Your task to perform on an android device: search for starred emails in the gmail app Image 0: 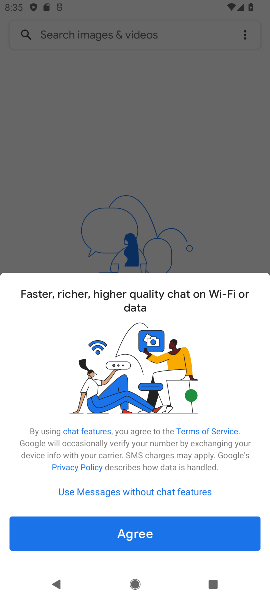
Step 0: press home button
Your task to perform on an android device: search for starred emails in the gmail app Image 1: 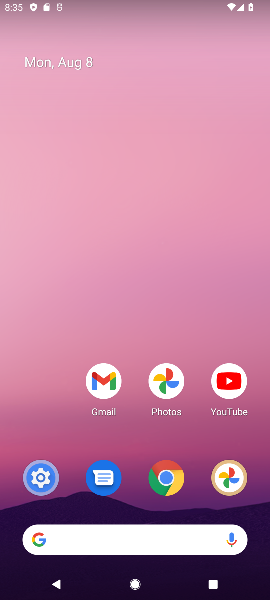
Step 1: click (103, 377)
Your task to perform on an android device: search for starred emails in the gmail app Image 2: 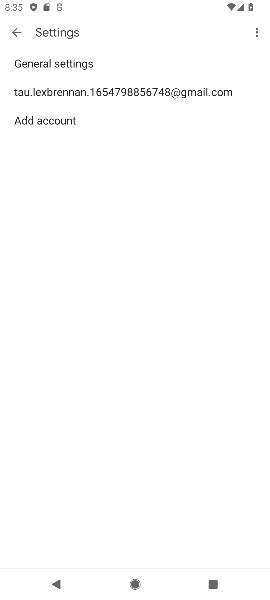
Step 2: click (14, 31)
Your task to perform on an android device: search for starred emails in the gmail app Image 3: 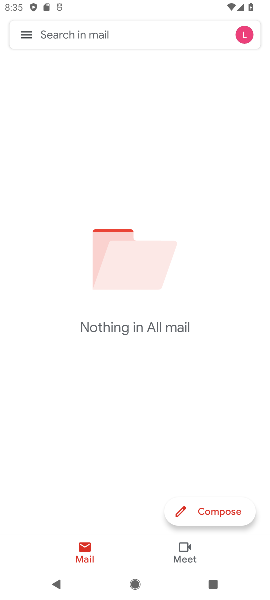
Step 3: click (29, 32)
Your task to perform on an android device: search for starred emails in the gmail app Image 4: 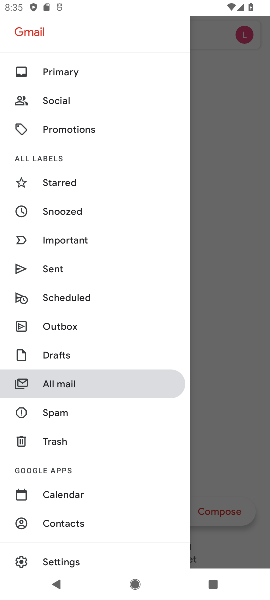
Step 4: click (66, 185)
Your task to perform on an android device: search for starred emails in the gmail app Image 5: 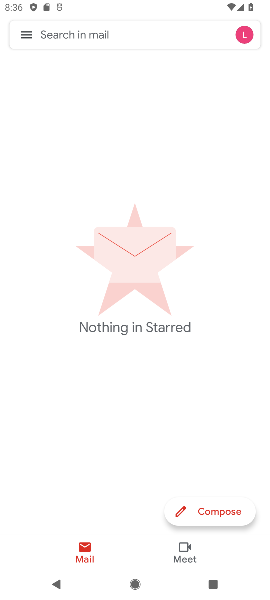
Step 5: task complete